Your task to perform on an android device: delete browsing data in the chrome app Image 0: 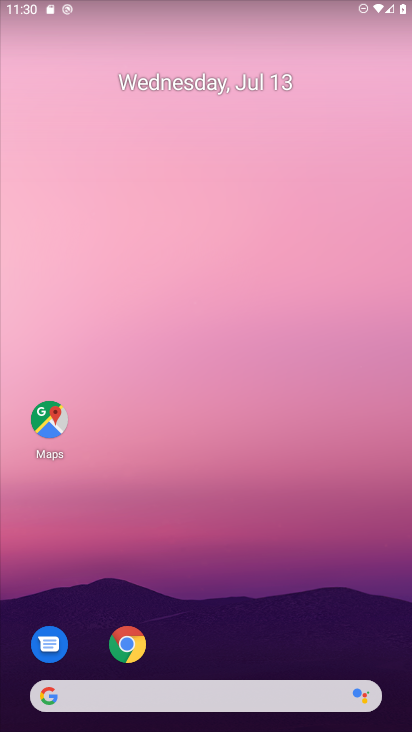
Step 0: click (128, 643)
Your task to perform on an android device: delete browsing data in the chrome app Image 1: 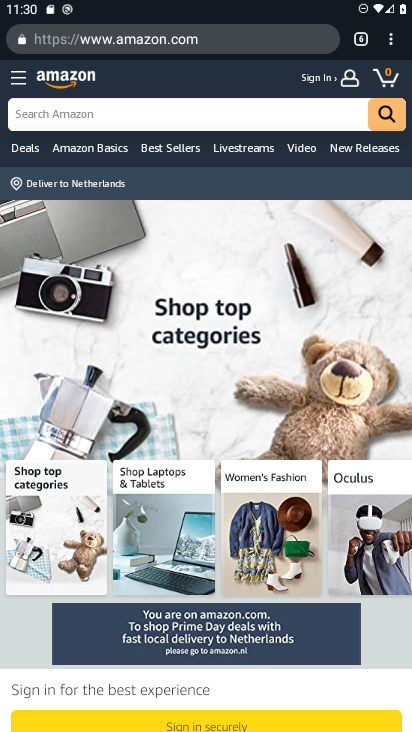
Step 1: click (398, 44)
Your task to perform on an android device: delete browsing data in the chrome app Image 2: 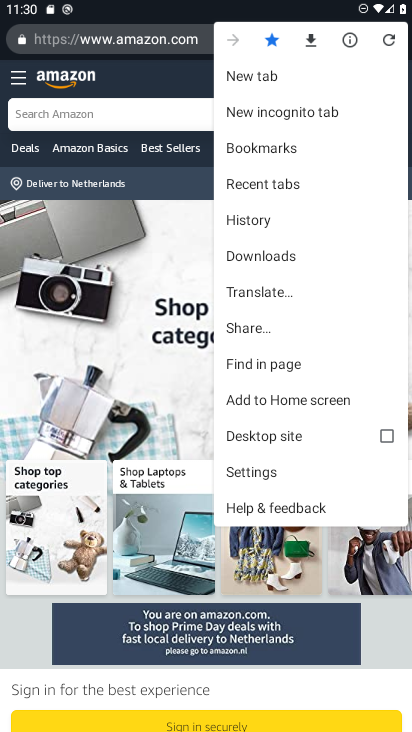
Step 2: click (254, 220)
Your task to perform on an android device: delete browsing data in the chrome app Image 3: 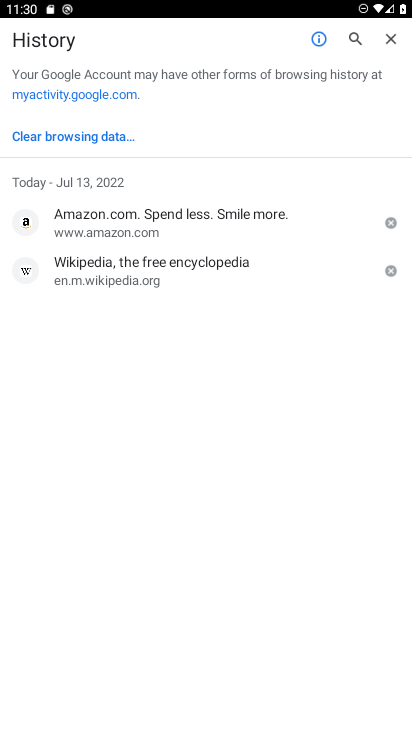
Step 3: click (79, 141)
Your task to perform on an android device: delete browsing data in the chrome app Image 4: 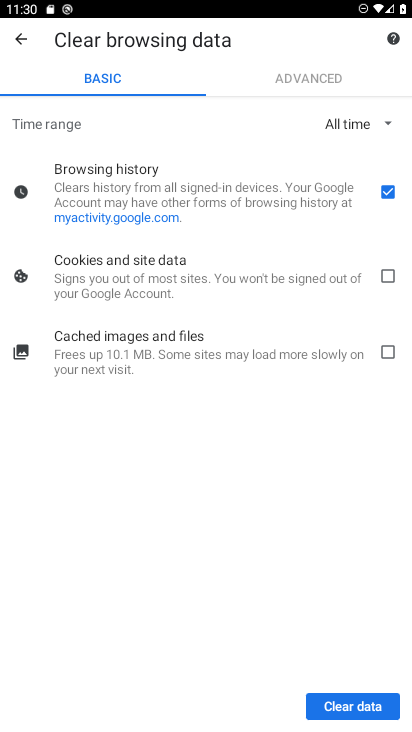
Step 4: click (339, 704)
Your task to perform on an android device: delete browsing data in the chrome app Image 5: 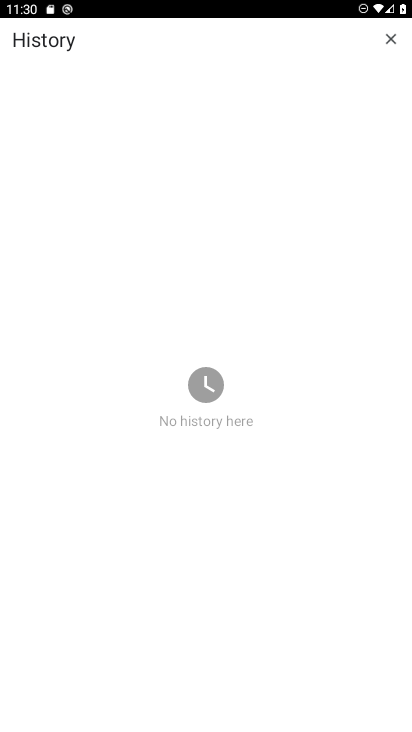
Step 5: task complete